Your task to perform on an android device: open chrome and create a bookmark for the current page Image 0: 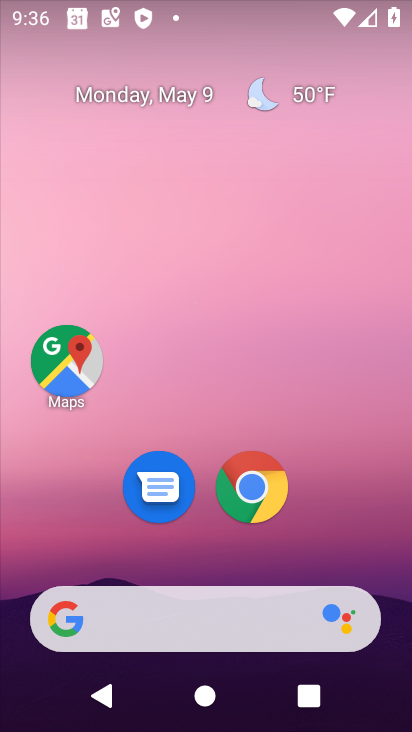
Step 0: click (245, 490)
Your task to perform on an android device: open chrome and create a bookmark for the current page Image 1: 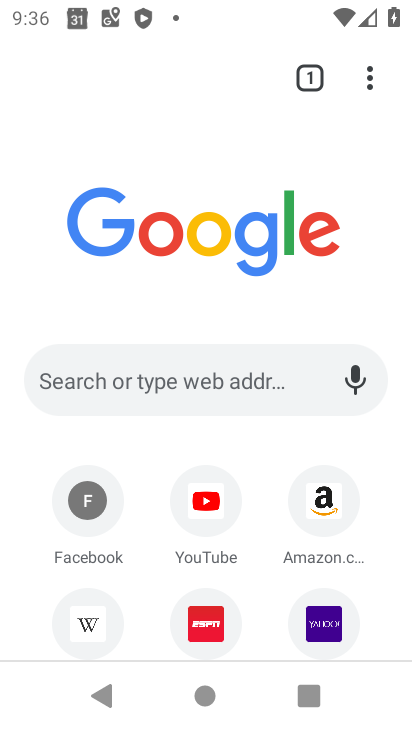
Step 1: click (364, 83)
Your task to perform on an android device: open chrome and create a bookmark for the current page Image 2: 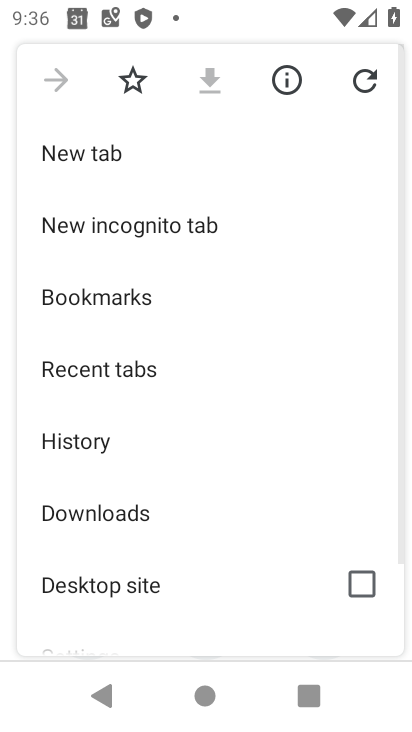
Step 2: click (125, 87)
Your task to perform on an android device: open chrome and create a bookmark for the current page Image 3: 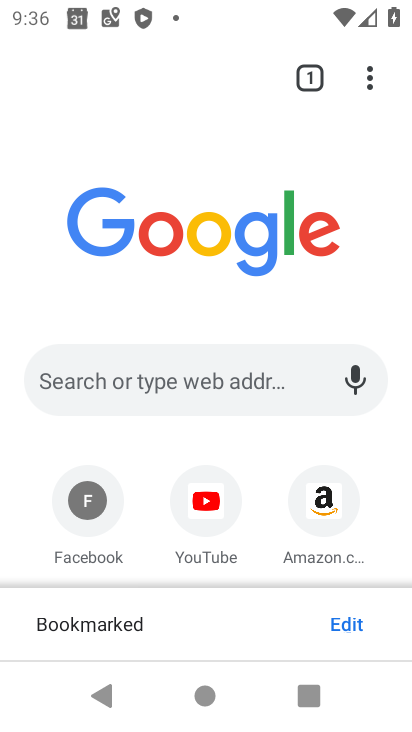
Step 3: click (354, 90)
Your task to perform on an android device: open chrome and create a bookmark for the current page Image 4: 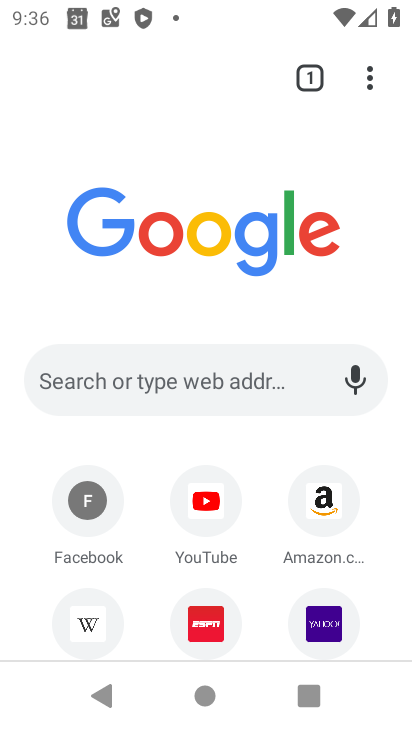
Step 4: task complete